Your task to perform on an android device: Open network settings Image 0: 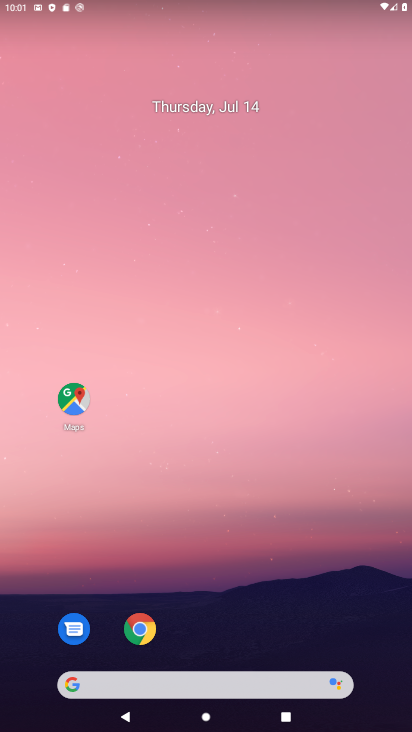
Step 0: drag from (218, 622) to (192, 250)
Your task to perform on an android device: Open network settings Image 1: 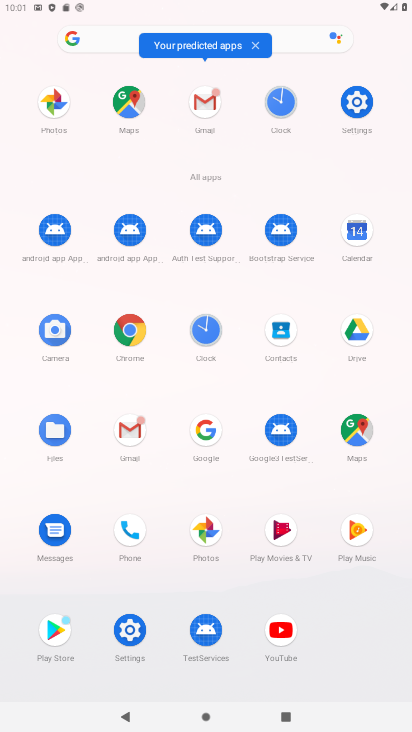
Step 1: click (349, 107)
Your task to perform on an android device: Open network settings Image 2: 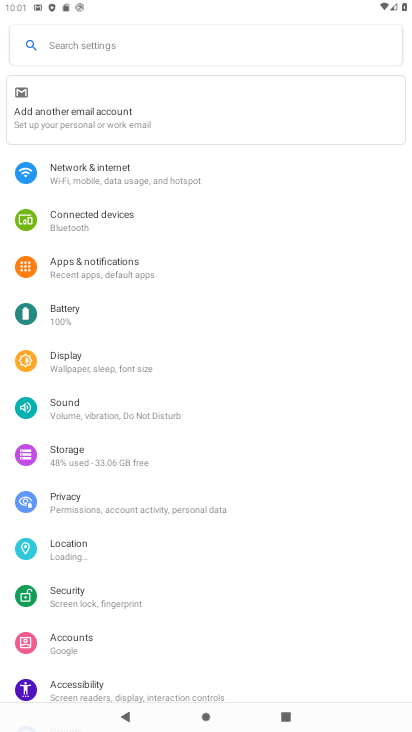
Step 2: click (86, 186)
Your task to perform on an android device: Open network settings Image 3: 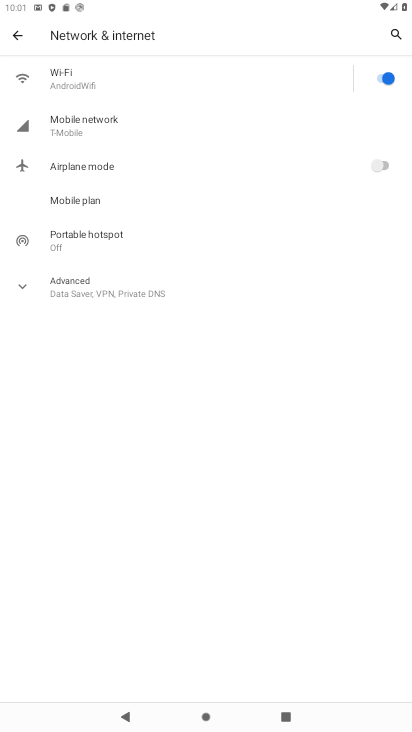
Step 3: click (74, 151)
Your task to perform on an android device: Open network settings Image 4: 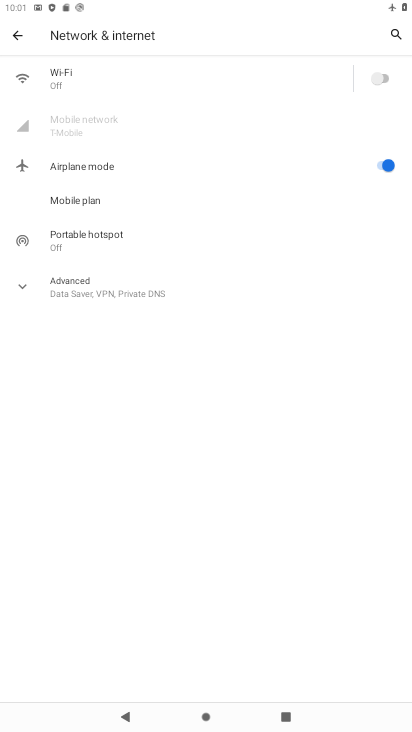
Step 4: click (379, 161)
Your task to perform on an android device: Open network settings Image 5: 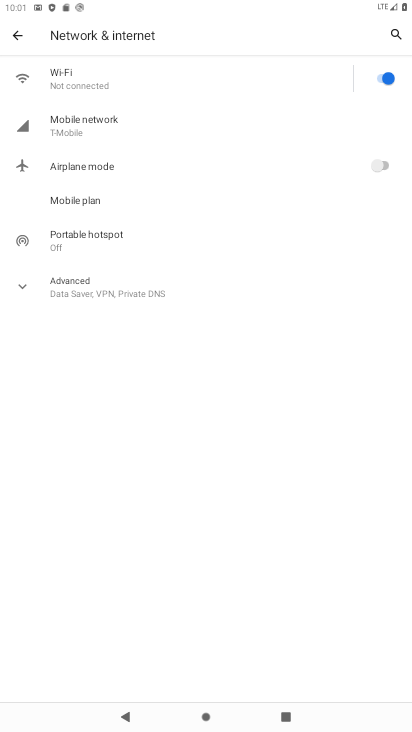
Step 5: click (108, 124)
Your task to perform on an android device: Open network settings Image 6: 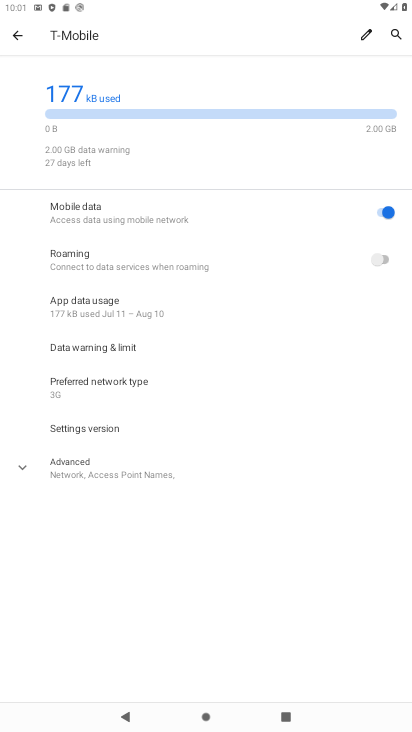
Step 6: task complete